Your task to perform on an android device: install app "Life360: Find Family & Friends" Image 0: 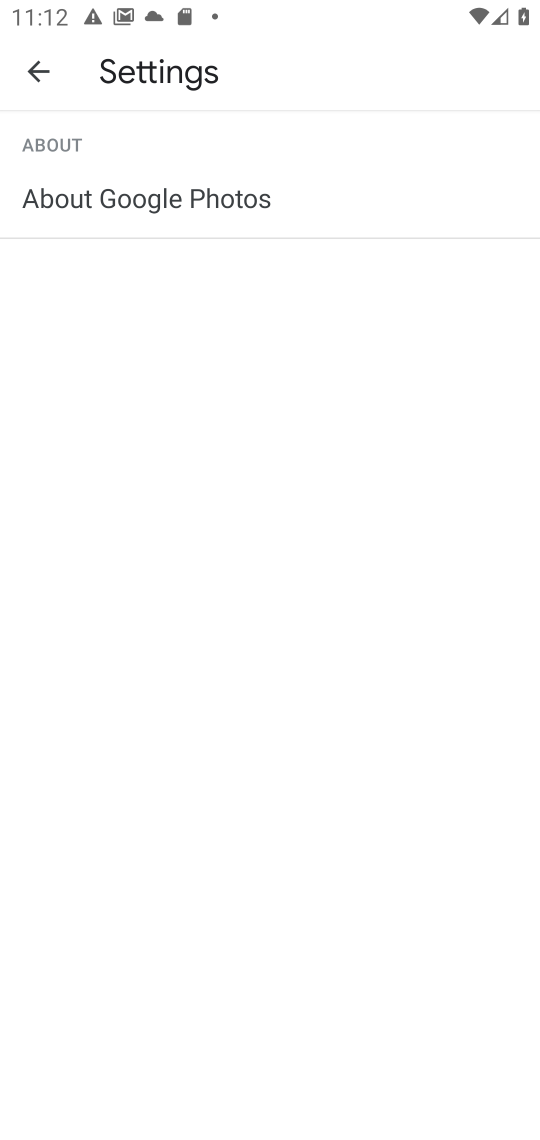
Step 0: press home button
Your task to perform on an android device: install app "Life360: Find Family & Friends" Image 1: 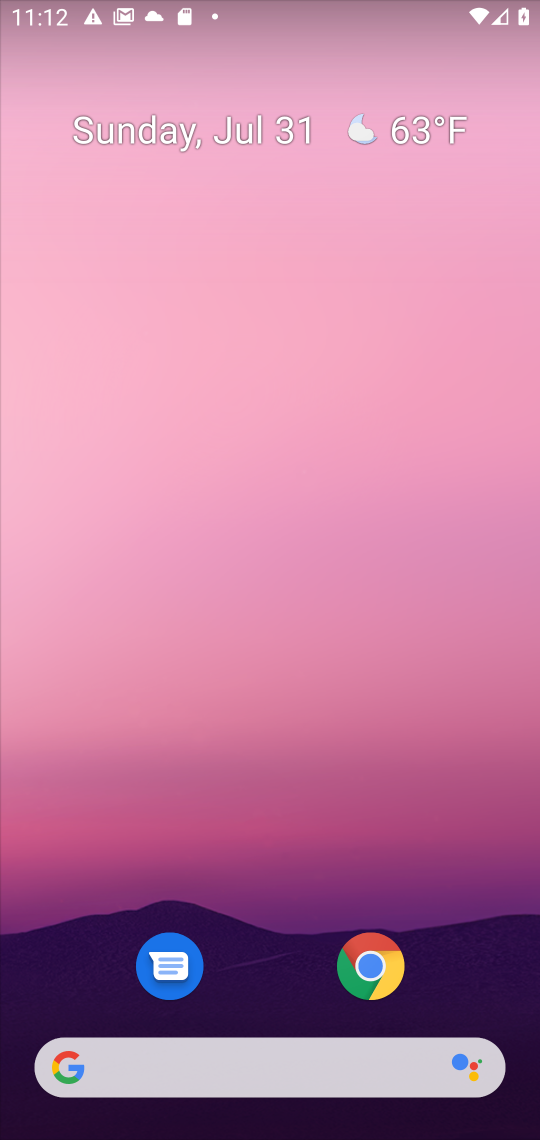
Step 1: drag from (251, 975) to (25, 678)
Your task to perform on an android device: install app "Life360: Find Family & Friends" Image 2: 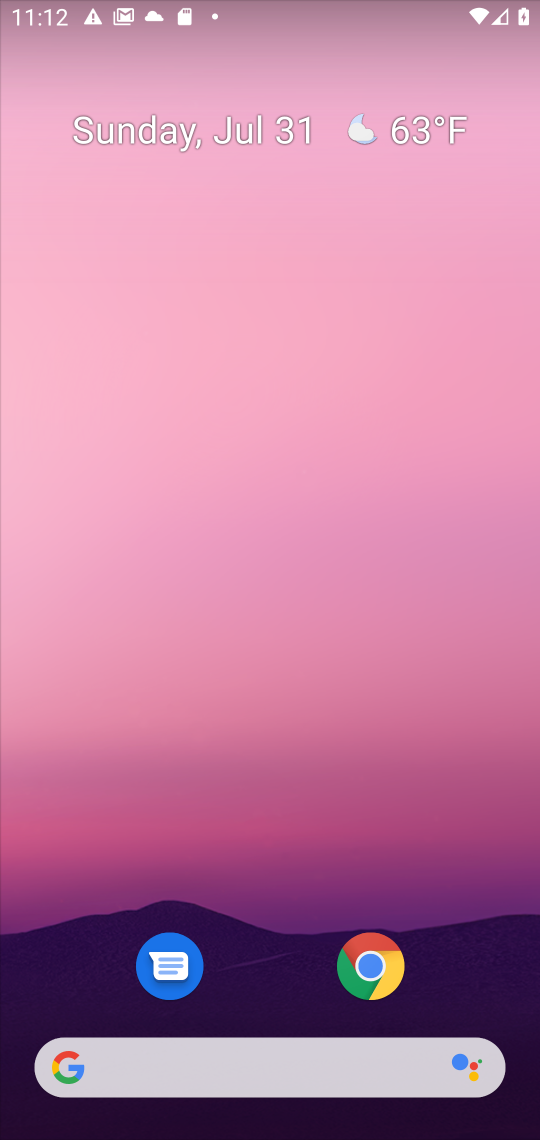
Step 2: drag from (251, 848) to (471, 0)
Your task to perform on an android device: install app "Life360: Find Family & Friends" Image 3: 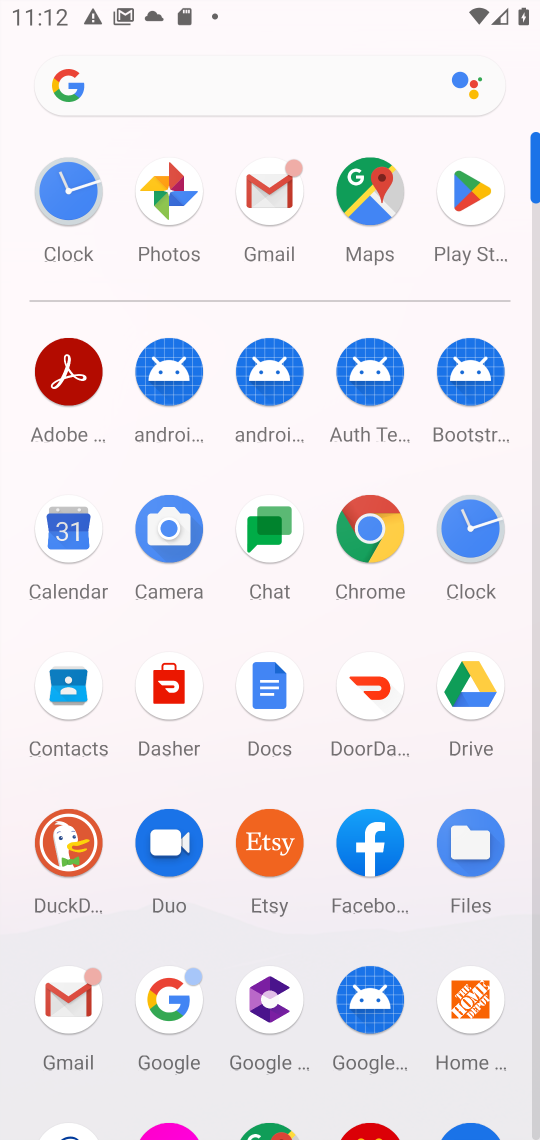
Step 3: click (484, 207)
Your task to perform on an android device: install app "Life360: Find Family & Friends" Image 4: 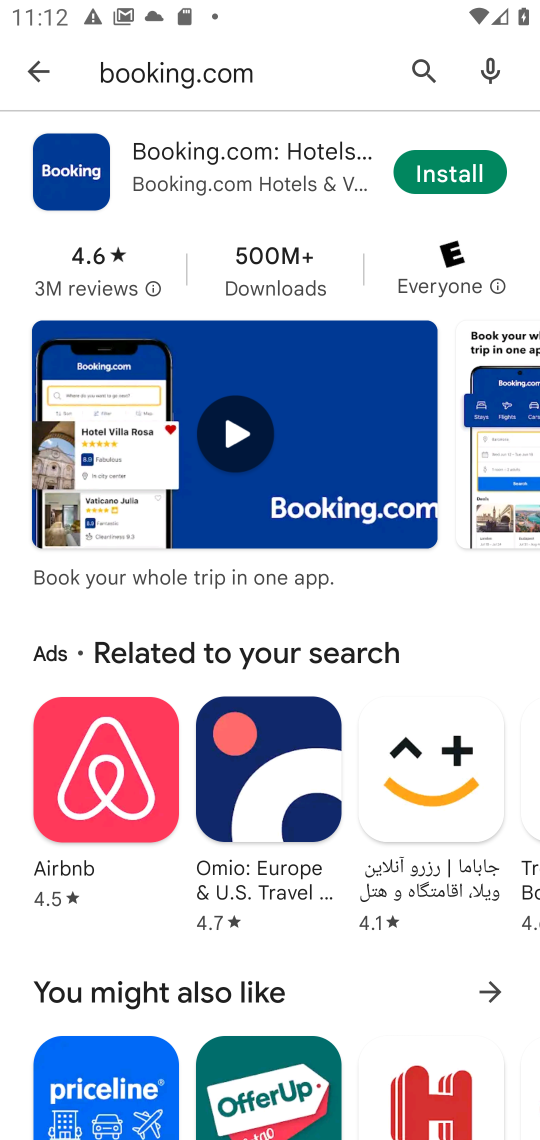
Step 4: click (275, 57)
Your task to perform on an android device: install app "Life360: Find Family & Friends" Image 5: 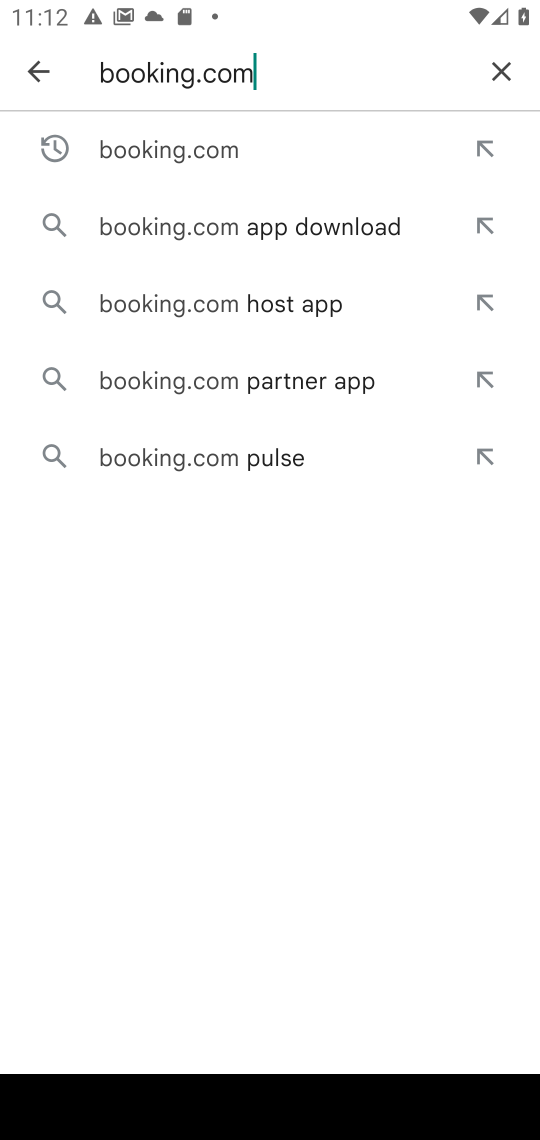
Step 5: click (502, 64)
Your task to perform on an android device: install app "Life360: Find Family & Friends" Image 6: 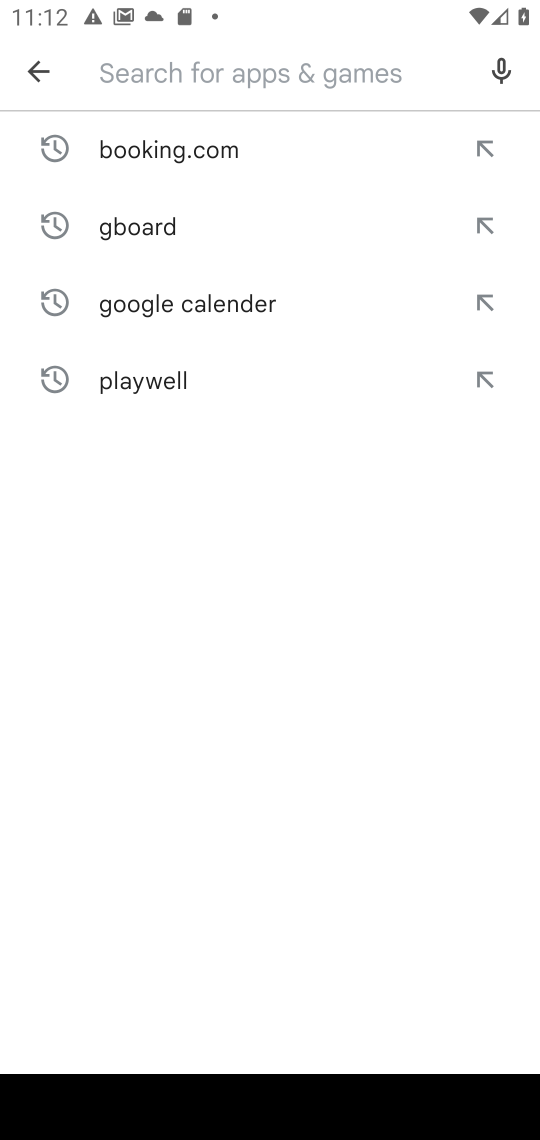
Step 6: type "life360"
Your task to perform on an android device: install app "Life360: Find Family & Friends" Image 7: 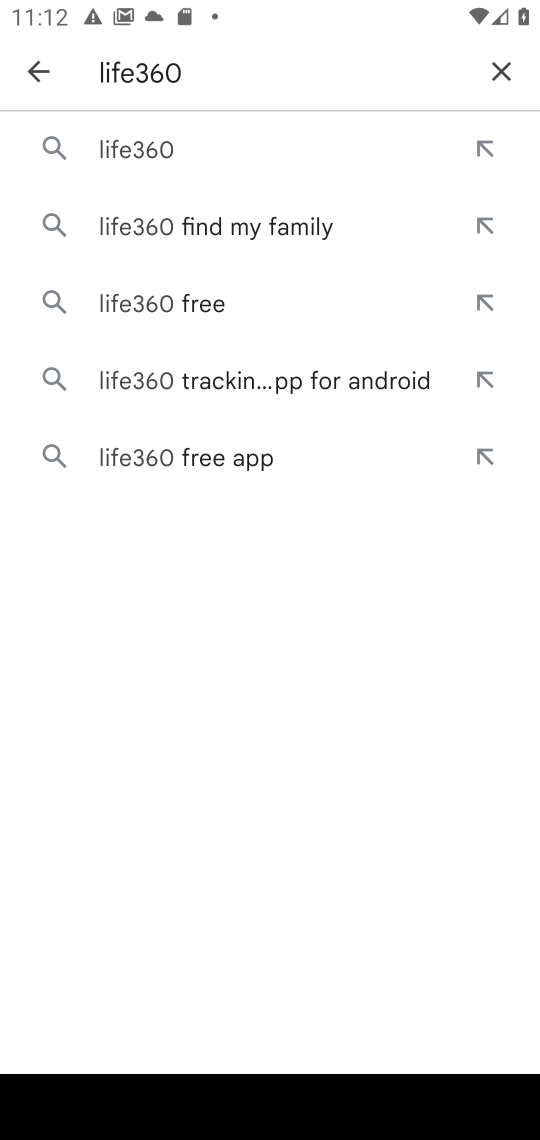
Step 7: click (178, 159)
Your task to perform on an android device: install app "Life360: Find Family & Friends" Image 8: 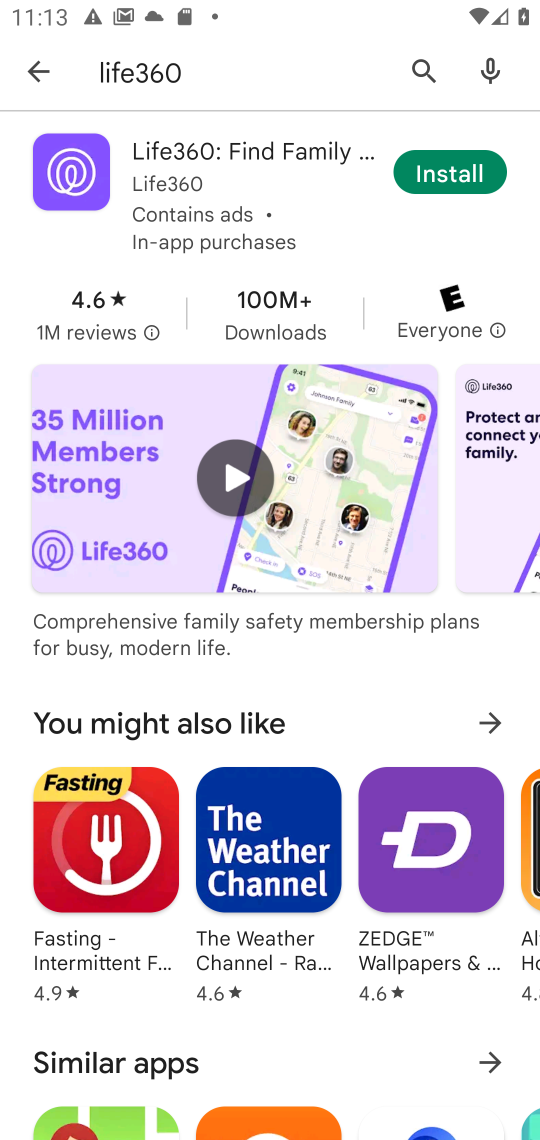
Step 8: click (478, 165)
Your task to perform on an android device: install app "Life360: Find Family & Friends" Image 9: 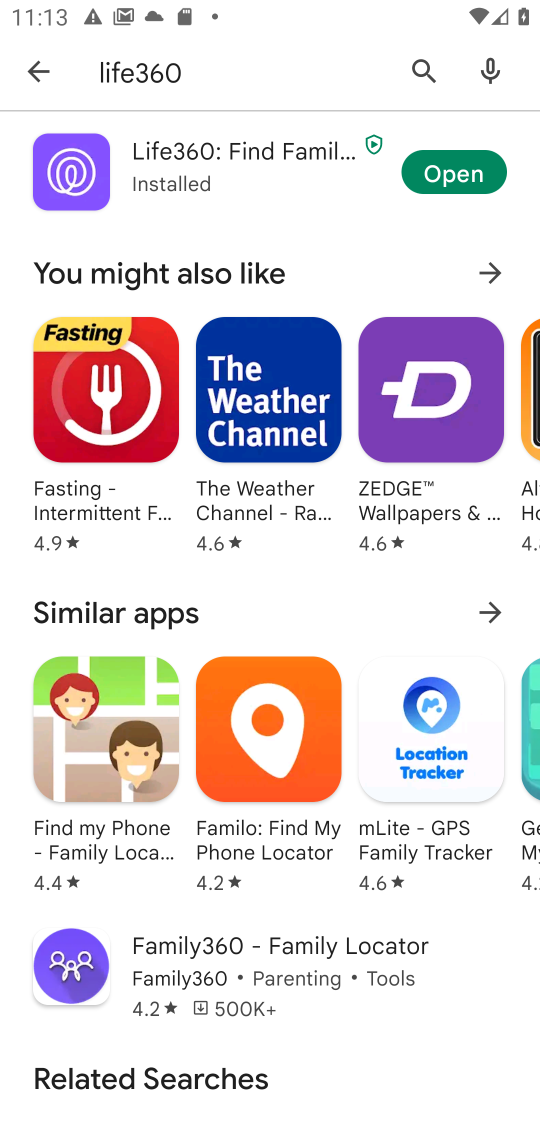
Step 9: task complete